Your task to perform on an android device: Open wifi settings Image 0: 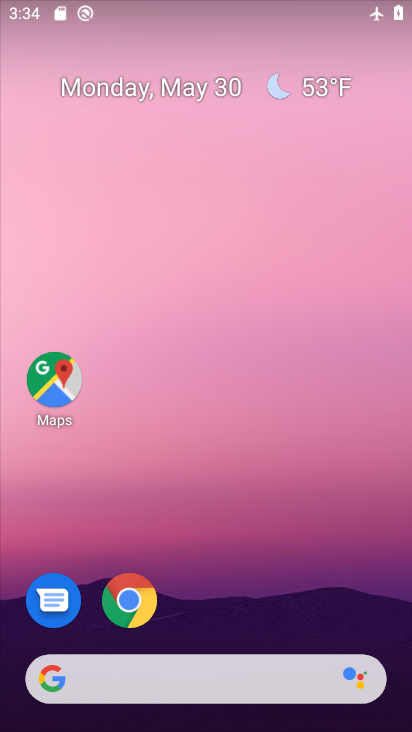
Step 0: drag from (223, 549) to (363, 48)
Your task to perform on an android device: Open wifi settings Image 1: 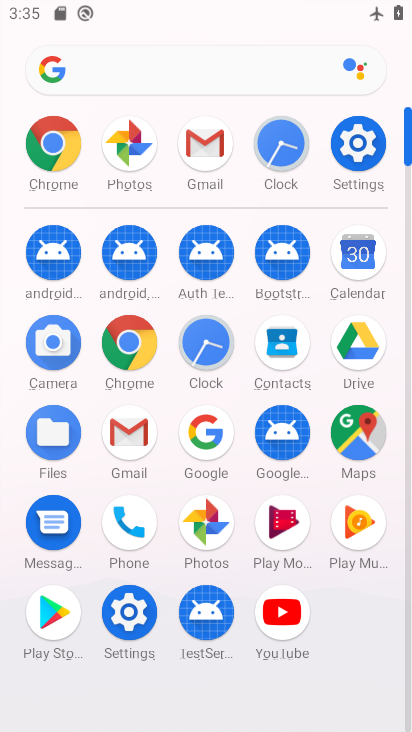
Step 1: click (355, 137)
Your task to perform on an android device: Open wifi settings Image 2: 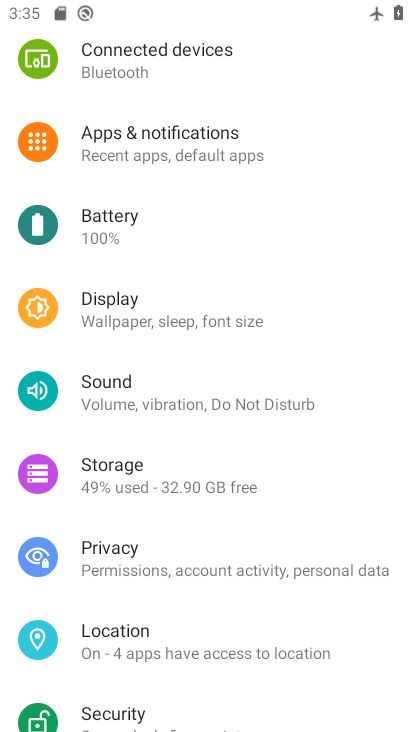
Step 2: drag from (102, 166) to (45, 500)
Your task to perform on an android device: Open wifi settings Image 3: 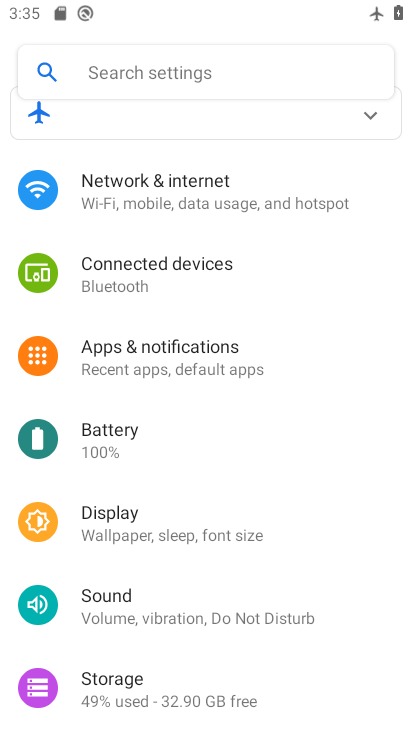
Step 3: drag from (106, 226) to (56, 482)
Your task to perform on an android device: Open wifi settings Image 4: 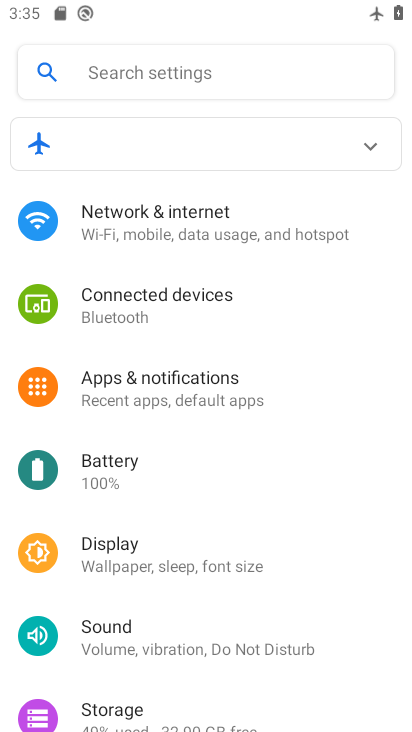
Step 4: click (157, 213)
Your task to perform on an android device: Open wifi settings Image 5: 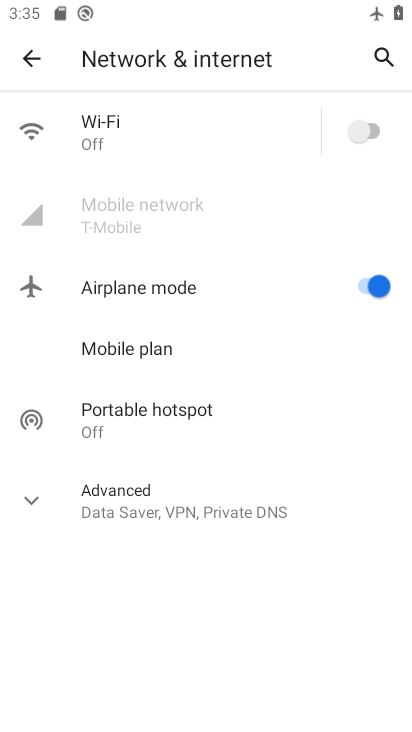
Step 5: click (109, 146)
Your task to perform on an android device: Open wifi settings Image 6: 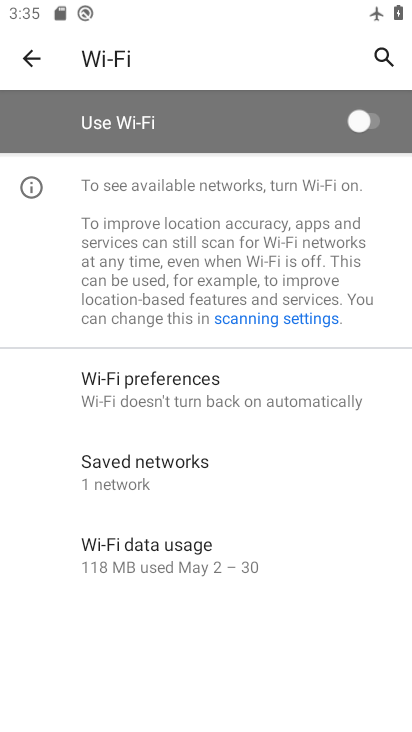
Step 6: task complete